Your task to perform on an android device: turn off sleep mode Image 0: 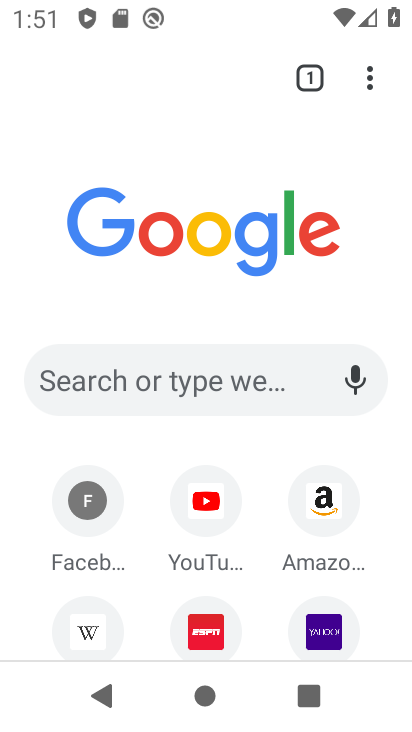
Step 0: press home button
Your task to perform on an android device: turn off sleep mode Image 1: 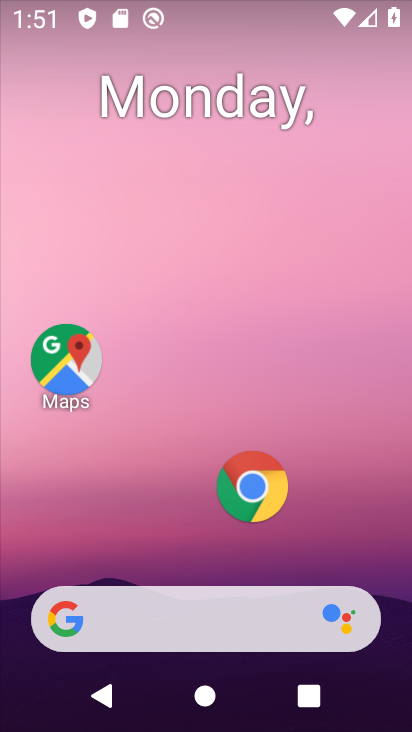
Step 1: drag from (118, 543) to (136, 0)
Your task to perform on an android device: turn off sleep mode Image 2: 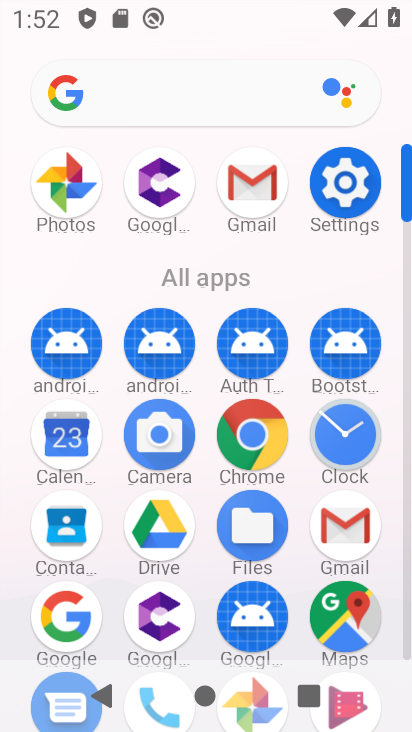
Step 2: click (351, 183)
Your task to perform on an android device: turn off sleep mode Image 3: 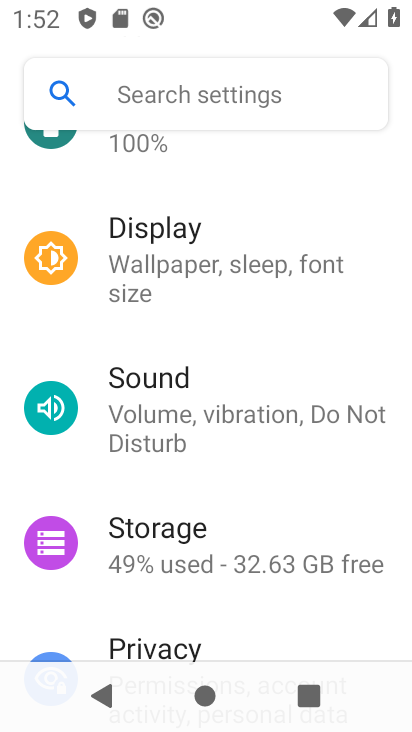
Step 3: click (214, 263)
Your task to perform on an android device: turn off sleep mode Image 4: 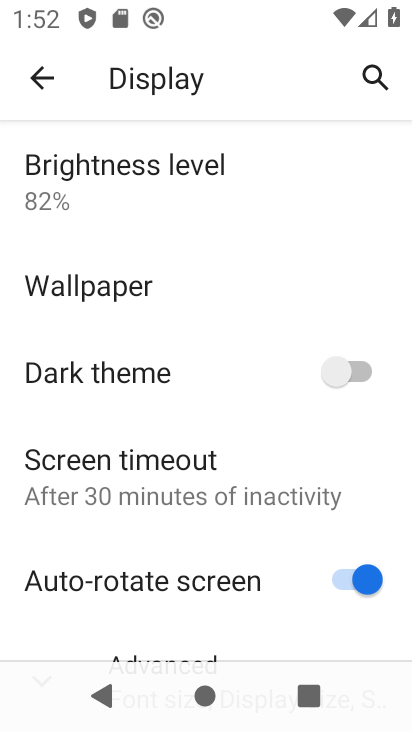
Step 4: drag from (180, 590) to (192, 326)
Your task to perform on an android device: turn off sleep mode Image 5: 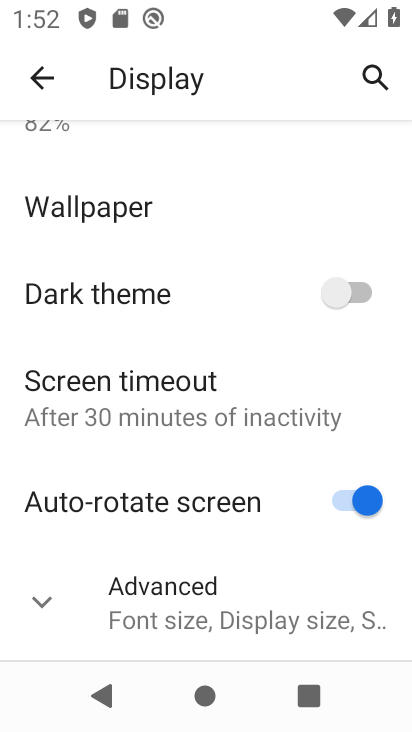
Step 5: click (189, 612)
Your task to perform on an android device: turn off sleep mode Image 6: 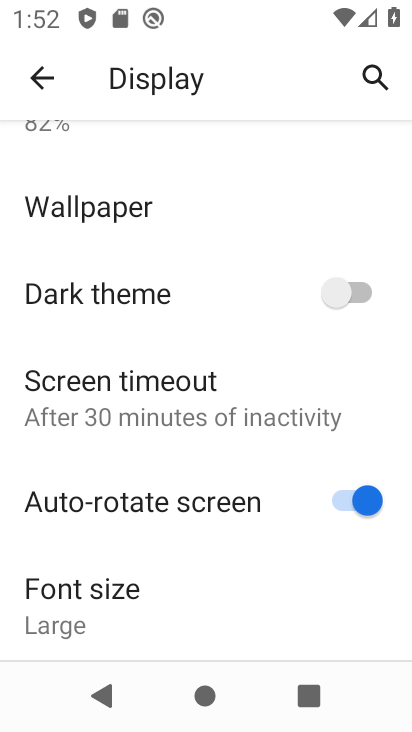
Step 6: drag from (206, 418) to (226, 303)
Your task to perform on an android device: turn off sleep mode Image 7: 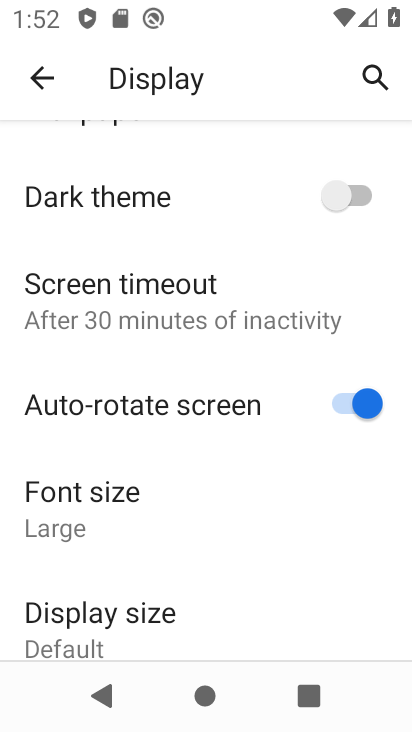
Step 7: drag from (175, 589) to (219, 250)
Your task to perform on an android device: turn off sleep mode Image 8: 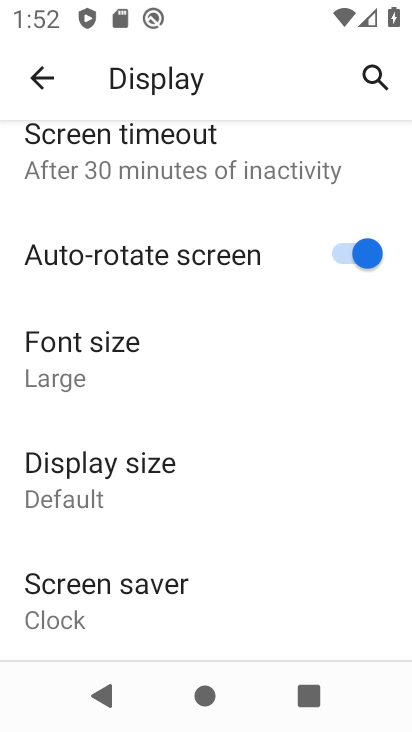
Step 8: click (36, 74)
Your task to perform on an android device: turn off sleep mode Image 9: 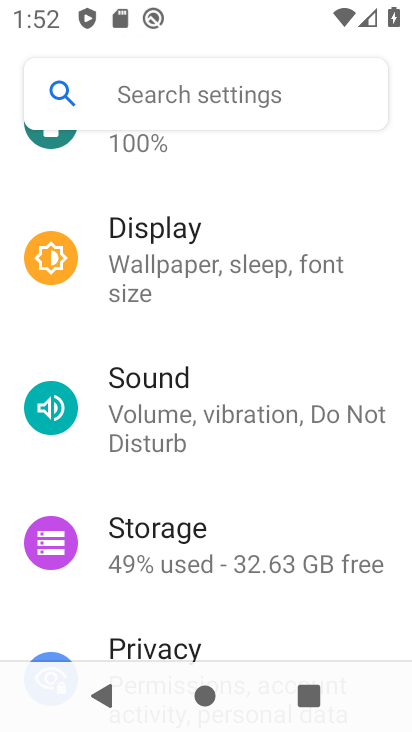
Step 9: task complete